Your task to perform on an android device: turn on translation in the chrome app Image 0: 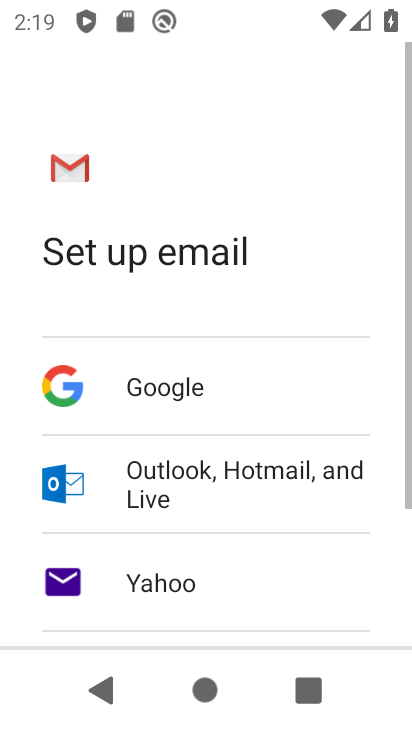
Step 0: press back button
Your task to perform on an android device: turn on translation in the chrome app Image 1: 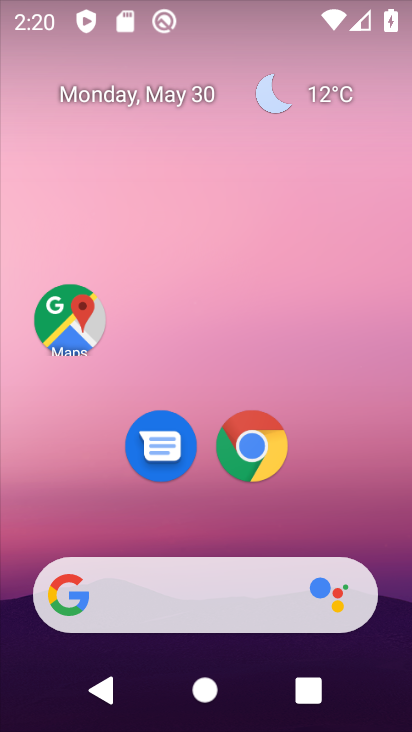
Step 1: click (251, 448)
Your task to perform on an android device: turn on translation in the chrome app Image 2: 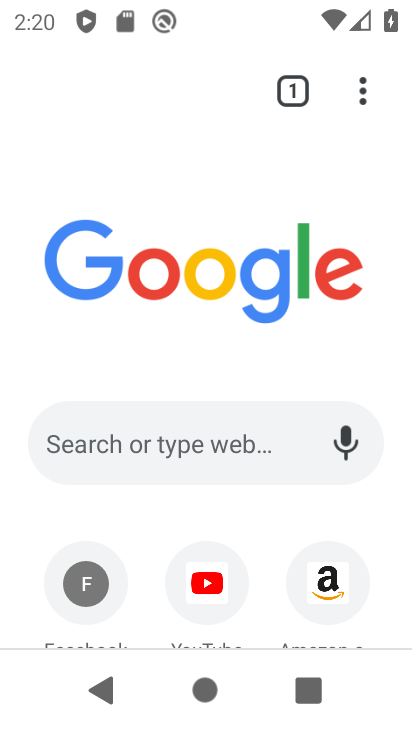
Step 2: click (365, 93)
Your task to perform on an android device: turn on translation in the chrome app Image 3: 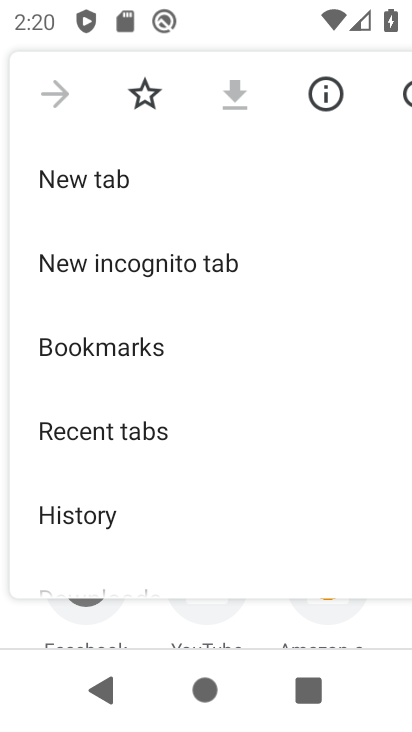
Step 3: drag from (136, 435) to (172, 323)
Your task to perform on an android device: turn on translation in the chrome app Image 4: 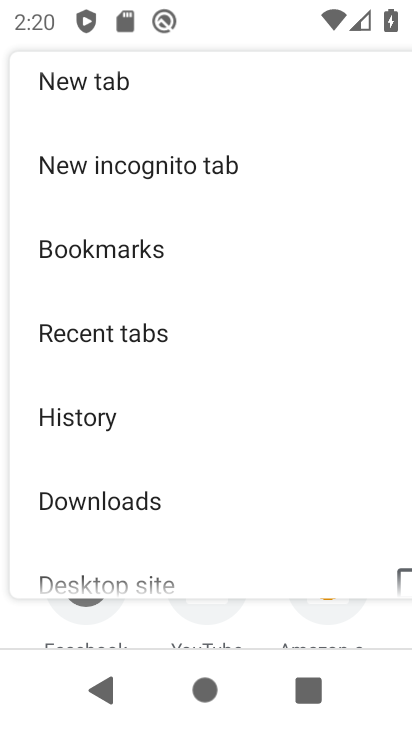
Step 4: drag from (165, 467) to (203, 359)
Your task to perform on an android device: turn on translation in the chrome app Image 5: 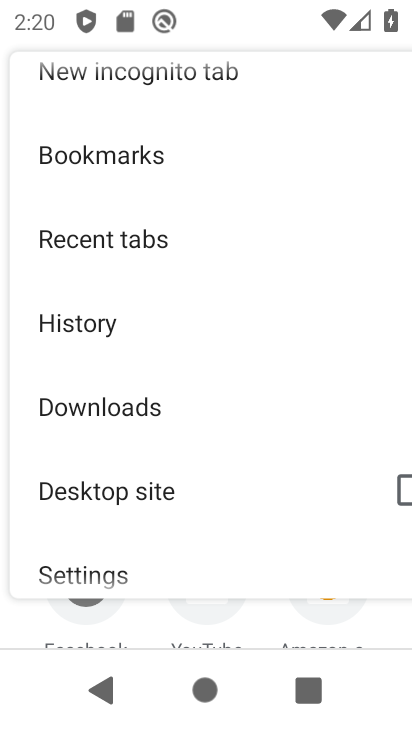
Step 5: drag from (159, 523) to (229, 421)
Your task to perform on an android device: turn on translation in the chrome app Image 6: 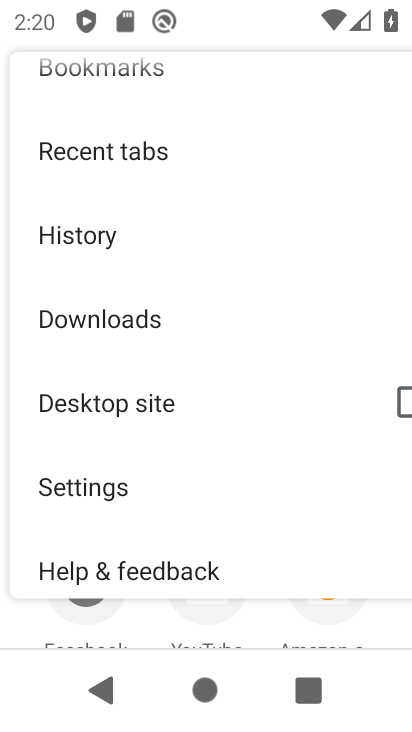
Step 6: drag from (156, 507) to (195, 369)
Your task to perform on an android device: turn on translation in the chrome app Image 7: 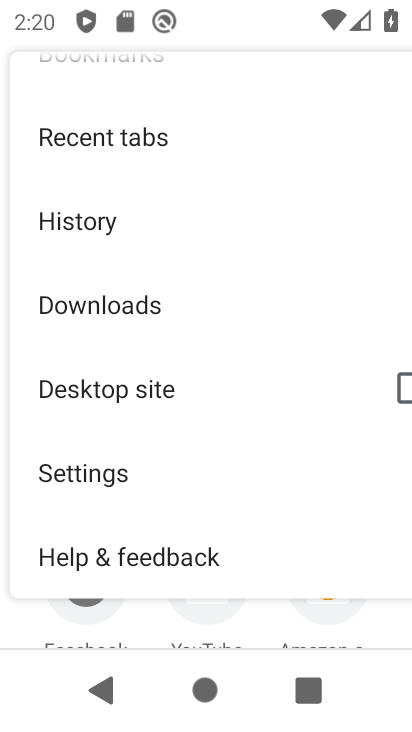
Step 7: click (97, 478)
Your task to perform on an android device: turn on translation in the chrome app Image 8: 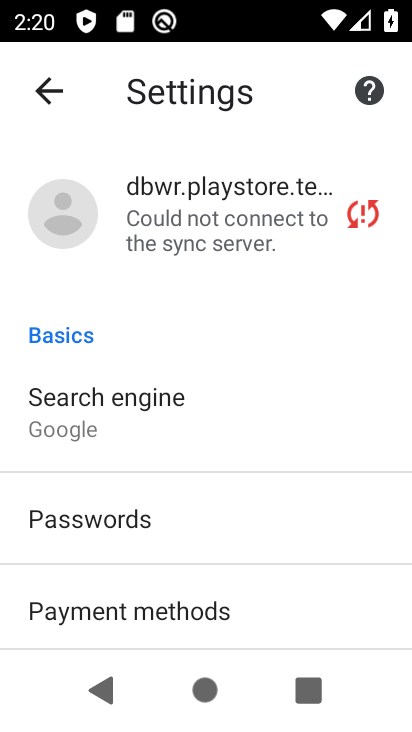
Step 8: drag from (162, 481) to (222, 359)
Your task to perform on an android device: turn on translation in the chrome app Image 9: 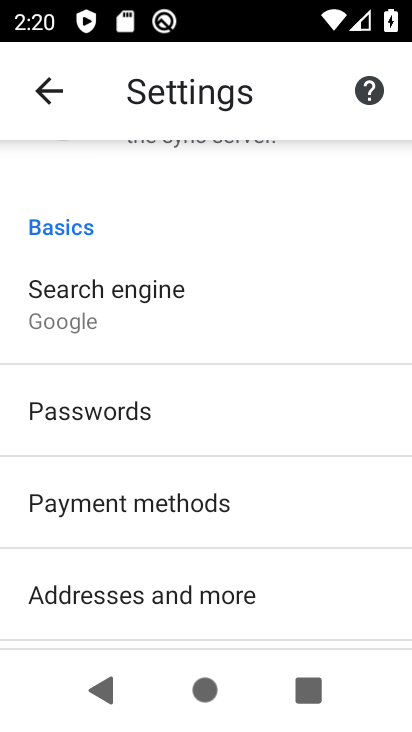
Step 9: drag from (162, 523) to (248, 391)
Your task to perform on an android device: turn on translation in the chrome app Image 10: 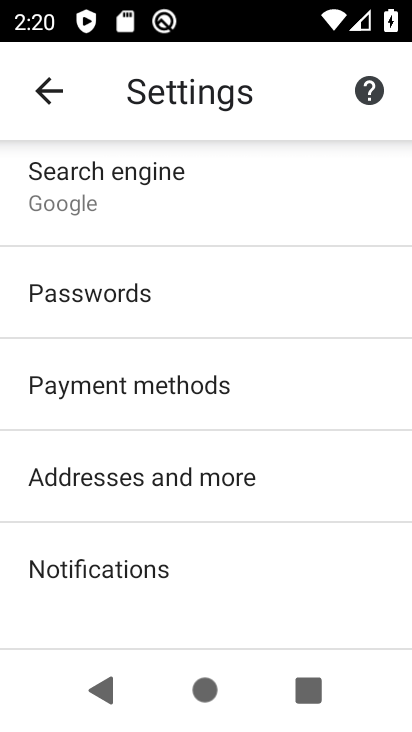
Step 10: drag from (169, 536) to (267, 383)
Your task to perform on an android device: turn on translation in the chrome app Image 11: 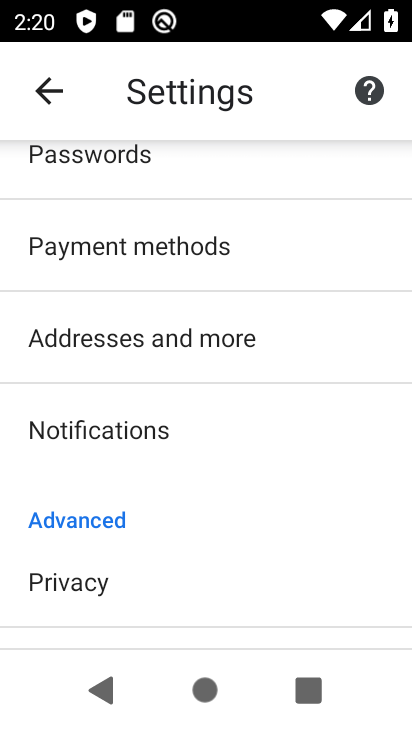
Step 11: drag from (175, 510) to (266, 343)
Your task to perform on an android device: turn on translation in the chrome app Image 12: 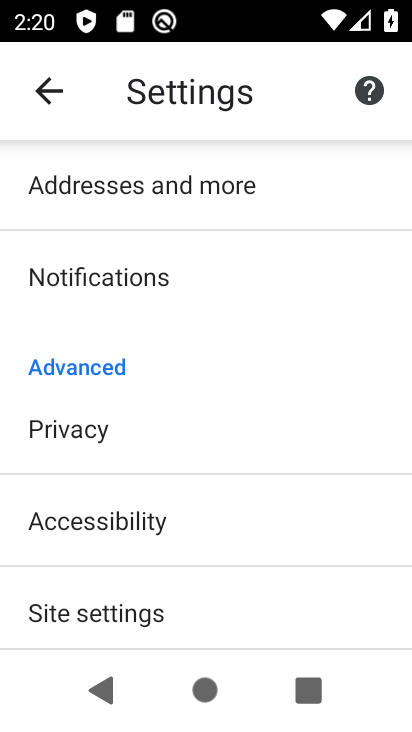
Step 12: drag from (194, 536) to (261, 397)
Your task to perform on an android device: turn on translation in the chrome app Image 13: 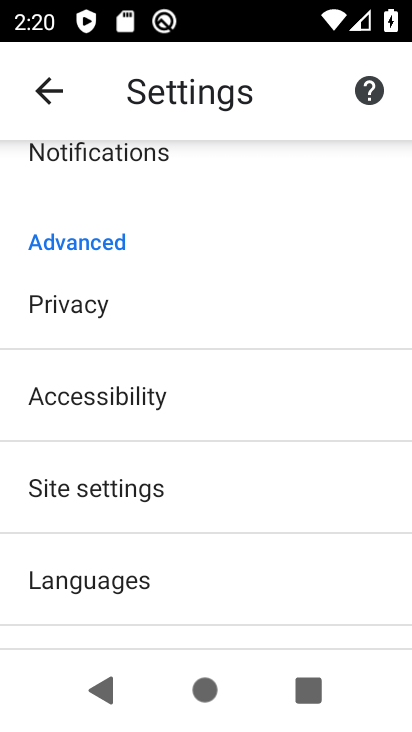
Step 13: click (147, 595)
Your task to perform on an android device: turn on translation in the chrome app Image 14: 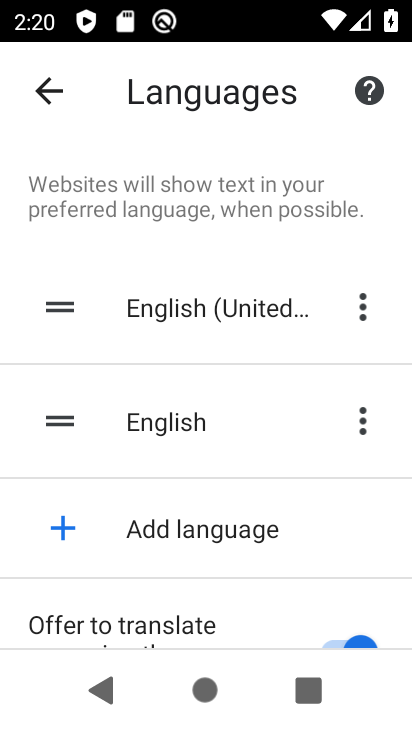
Step 14: task complete